Your task to perform on an android device: When is my next appointment? Image 0: 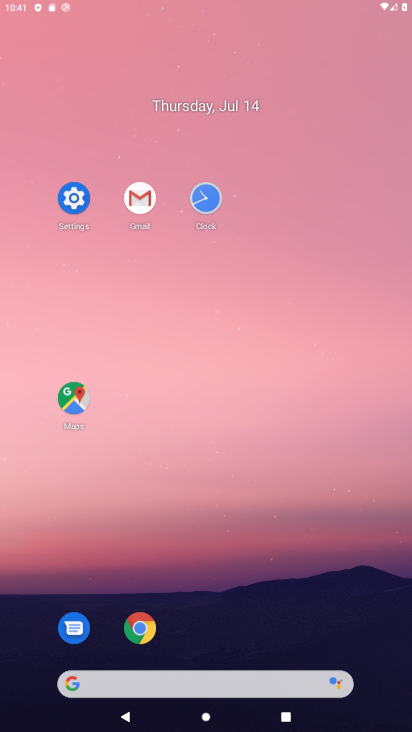
Step 0: click (236, 698)
Your task to perform on an android device: When is my next appointment? Image 1: 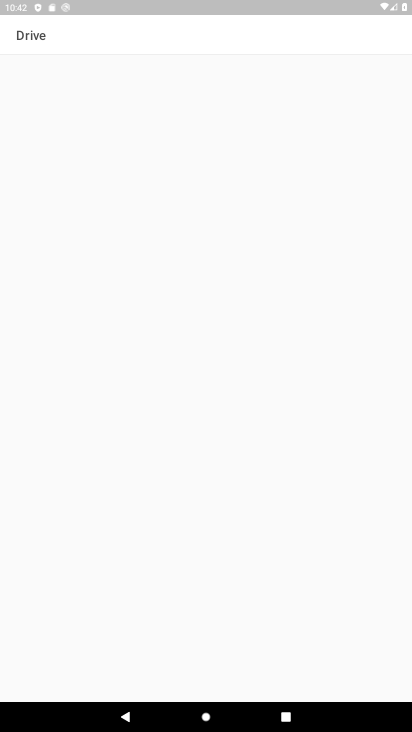
Step 1: press home button
Your task to perform on an android device: When is my next appointment? Image 2: 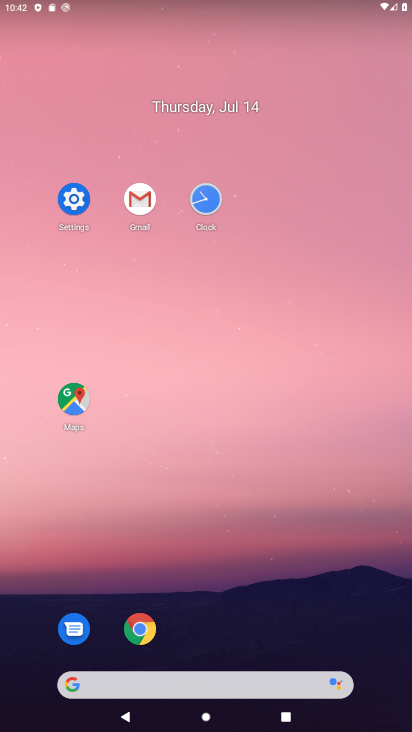
Step 2: drag from (235, 551) to (286, 145)
Your task to perform on an android device: When is my next appointment? Image 3: 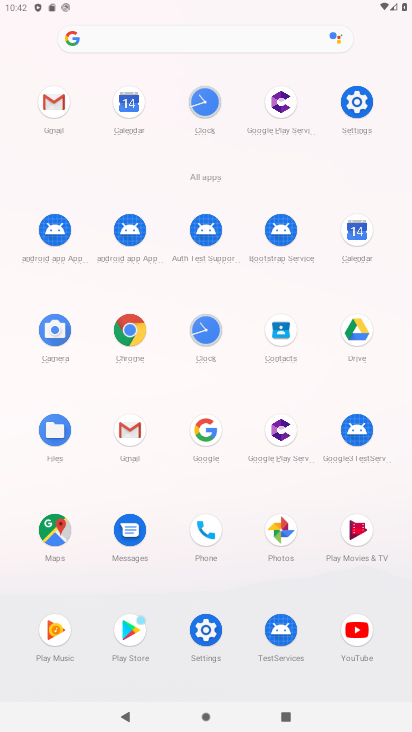
Step 3: drag from (358, 235) to (100, 256)
Your task to perform on an android device: When is my next appointment? Image 4: 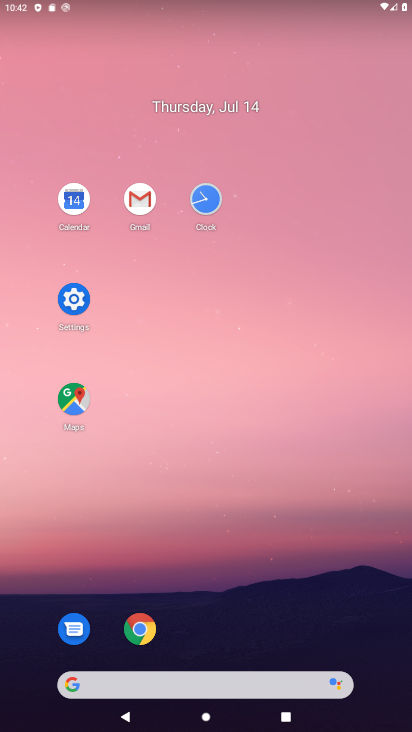
Step 4: click (87, 197)
Your task to perform on an android device: When is my next appointment? Image 5: 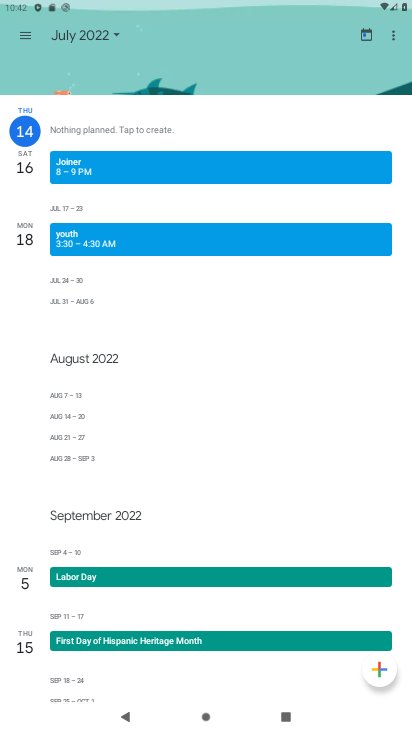
Step 5: click (21, 37)
Your task to perform on an android device: When is my next appointment? Image 6: 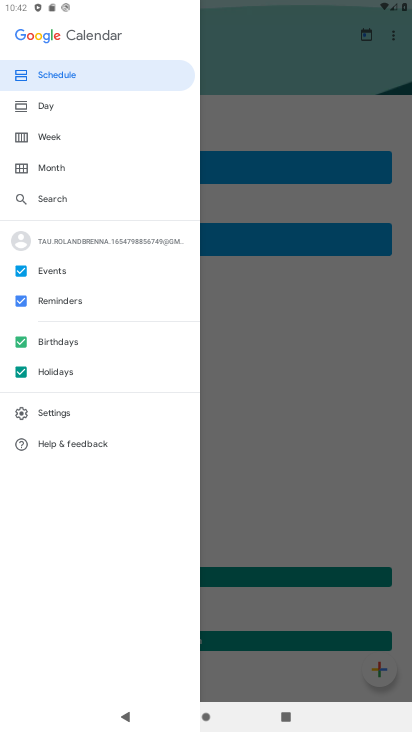
Step 6: click (82, 135)
Your task to perform on an android device: When is my next appointment? Image 7: 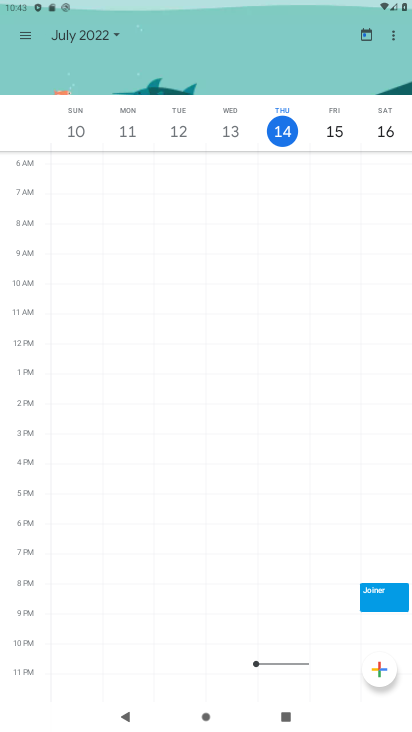
Step 7: click (338, 131)
Your task to perform on an android device: When is my next appointment? Image 8: 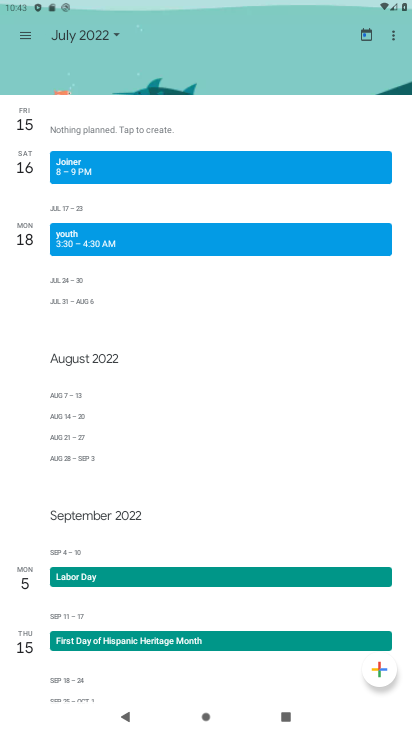
Step 8: task complete